Your task to perform on an android device: Find coffee shops on Maps Image 0: 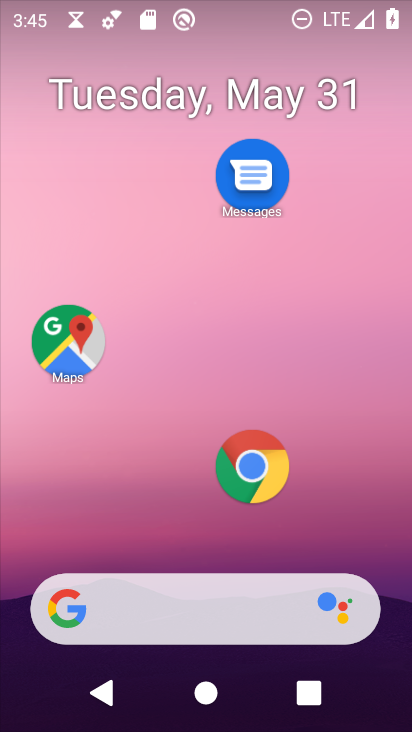
Step 0: drag from (137, 484) to (216, 83)
Your task to perform on an android device: Find coffee shops on Maps Image 1: 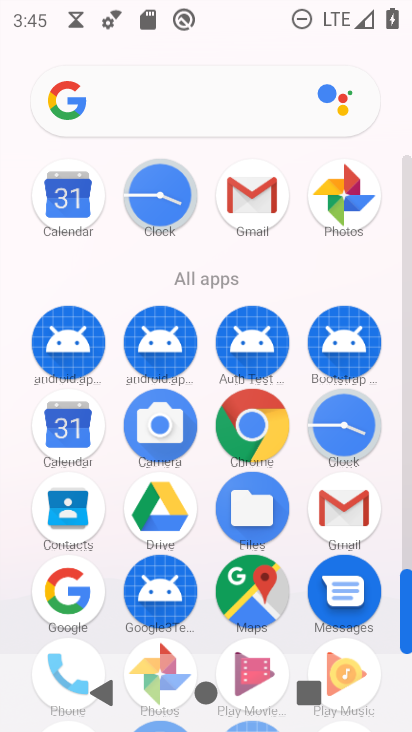
Step 1: click (255, 590)
Your task to perform on an android device: Find coffee shops on Maps Image 2: 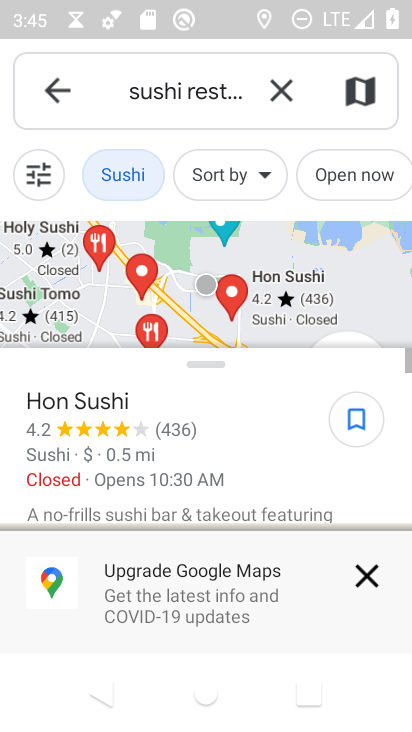
Step 2: click (287, 70)
Your task to perform on an android device: Find coffee shops on Maps Image 3: 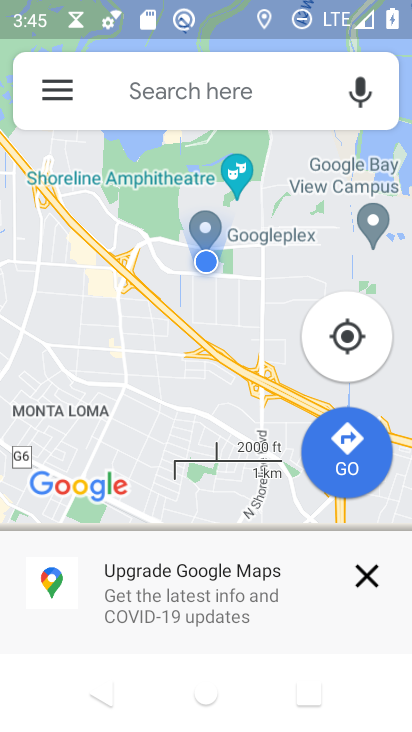
Step 3: click (154, 95)
Your task to perform on an android device: Find coffee shops on Maps Image 4: 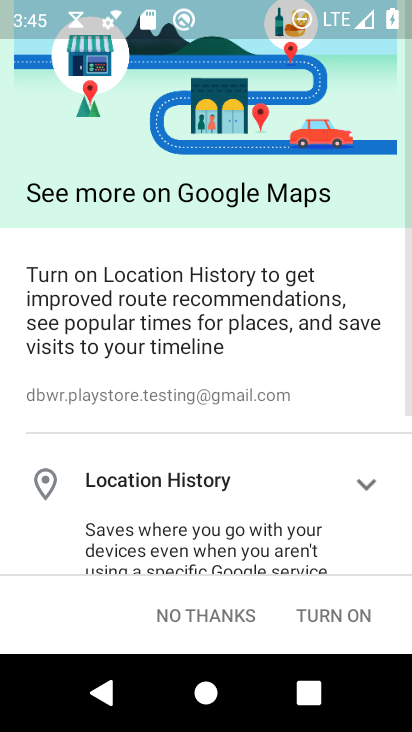
Step 4: click (214, 605)
Your task to perform on an android device: Find coffee shops on Maps Image 5: 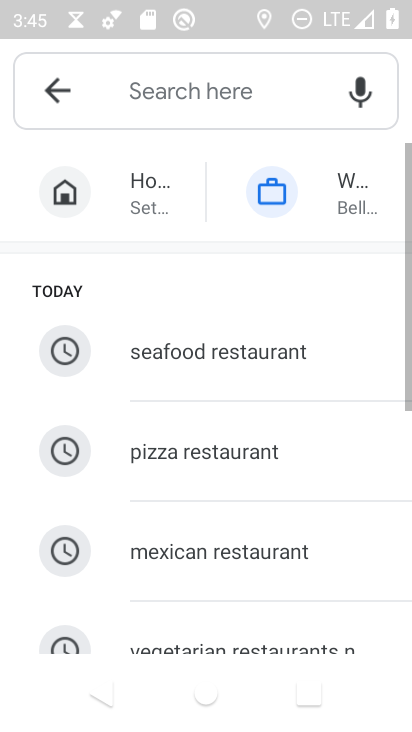
Step 5: click (188, 93)
Your task to perform on an android device: Find coffee shops on Maps Image 6: 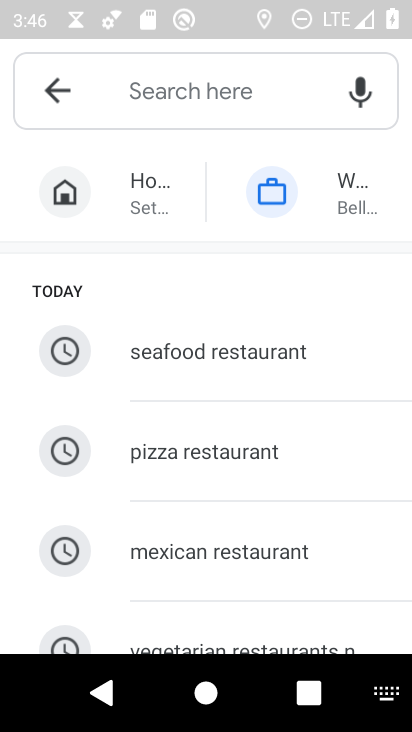
Step 6: type "coffe shops"
Your task to perform on an android device: Find coffee shops on Maps Image 7: 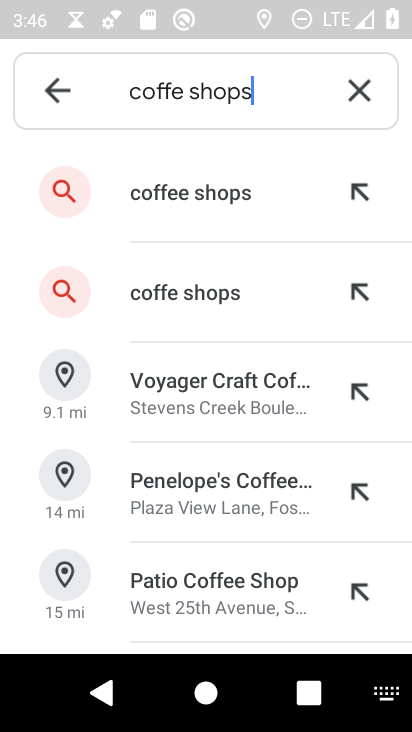
Step 7: click (191, 183)
Your task to perform on an android device: Find coffee shops on Maps Image 8: 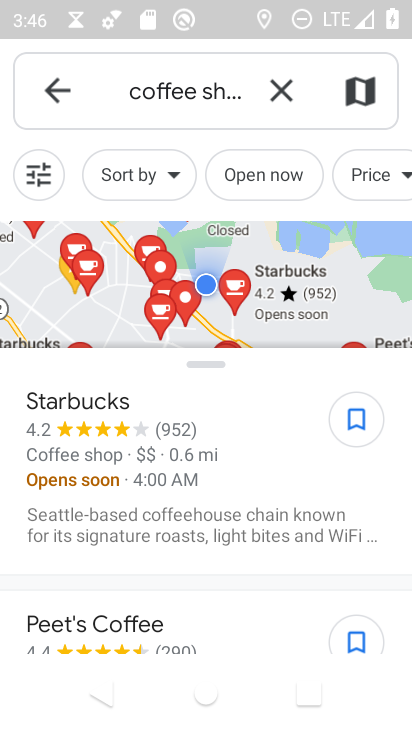
Step 8: task complete